Your task to perform on an android device: Search for Italian restaurants on Maps Image 0: 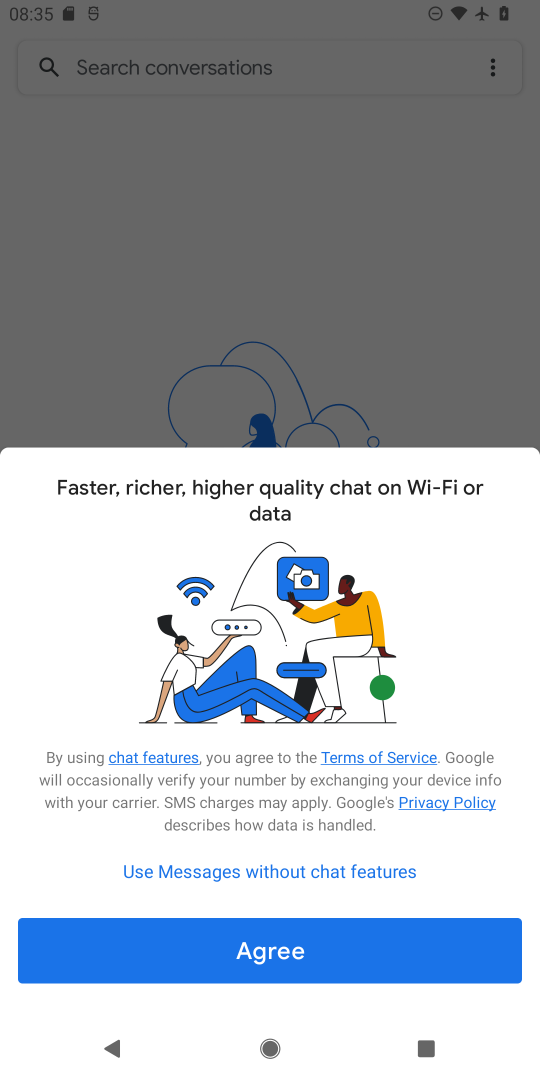
Step 0: press home button
Your task to perform on an android device: Search for Italian restaurants on Maps Image 1: 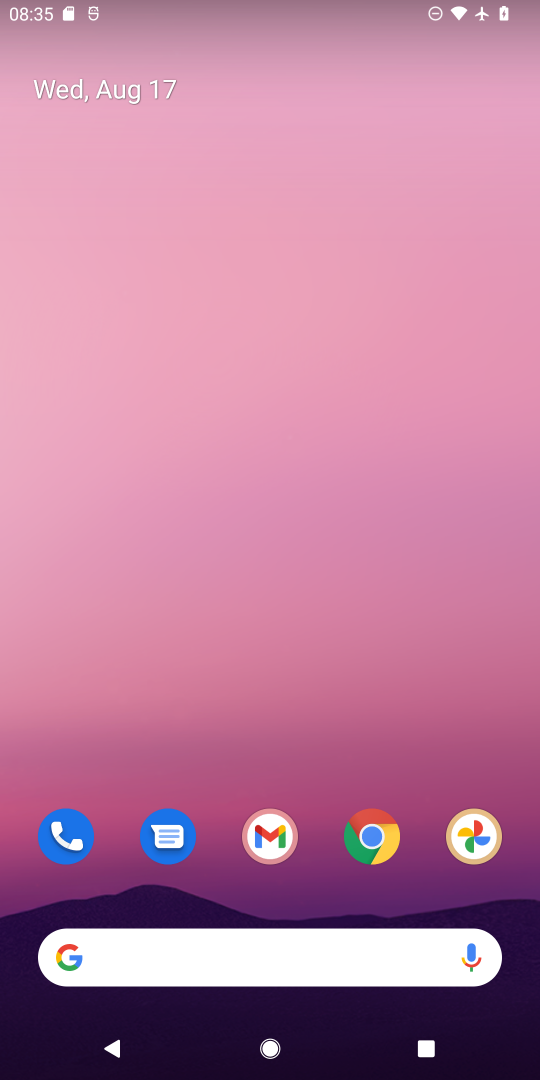
Step 1: drag from (249, 783) to (270, 308)
Your task to perform on an android device: Search for Italian restaurants on Maps Image 2: 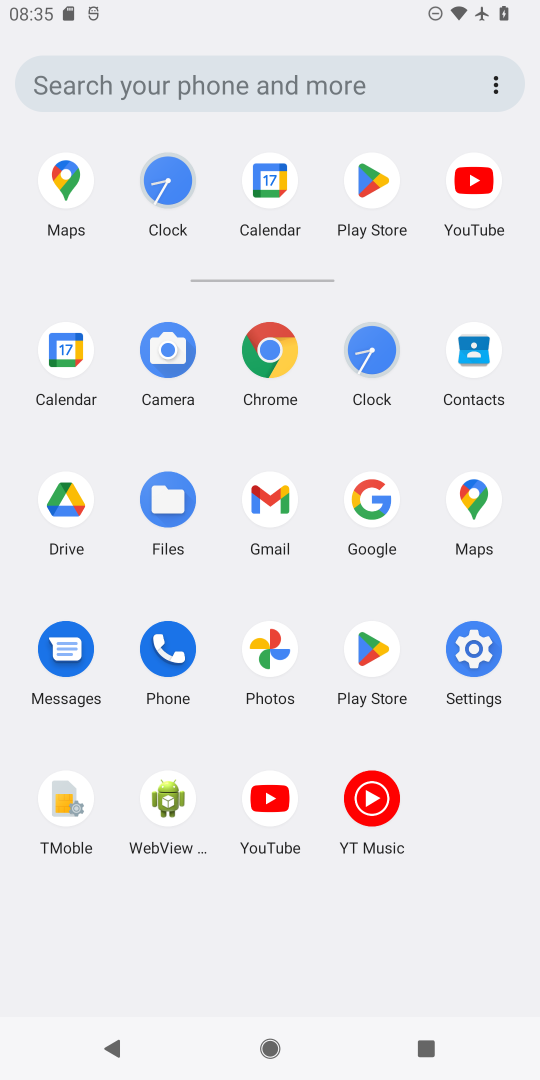
Step 2: click (468, 491)
Your task to perform on an android device: Search for Italian restaurants on Maps Image 3: 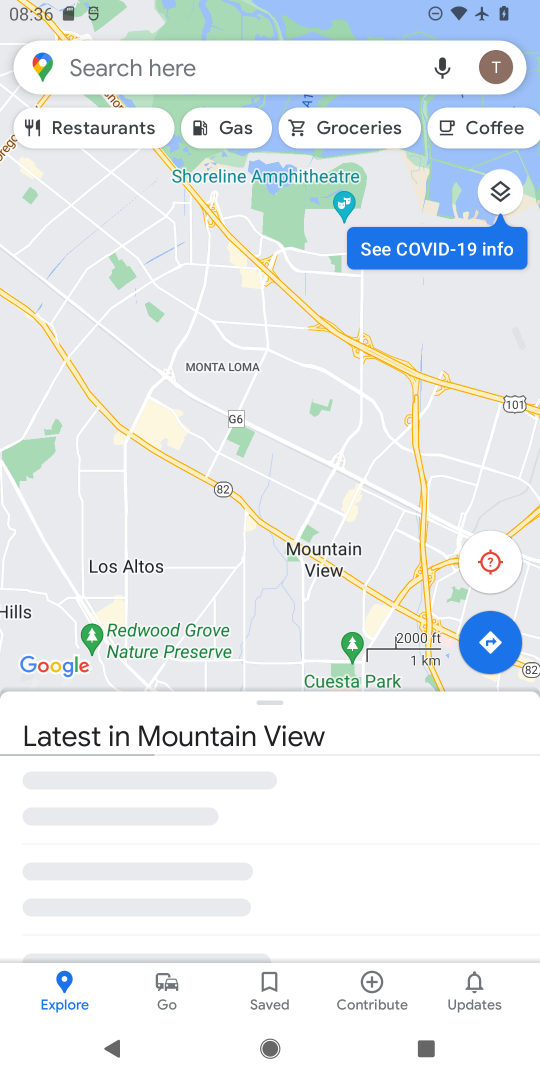
Step 3: click (184, 63)
Your task to perform on an android device: Search for Italian restaurants on Maps Image 4: 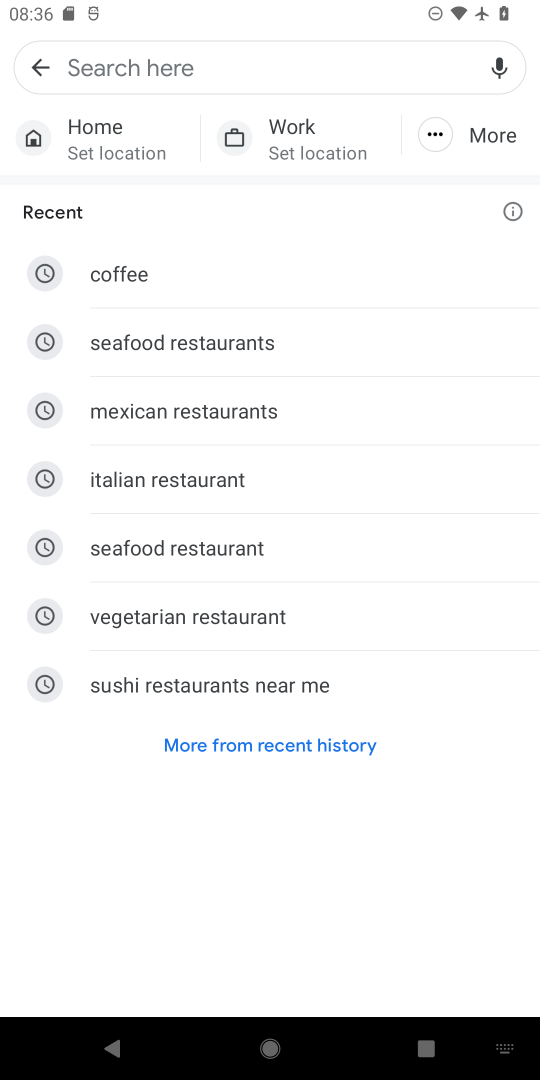
Step 4: click (220, 476)
Your task to perform on an android device: Search for Italian restaurants on Maps Image 5: 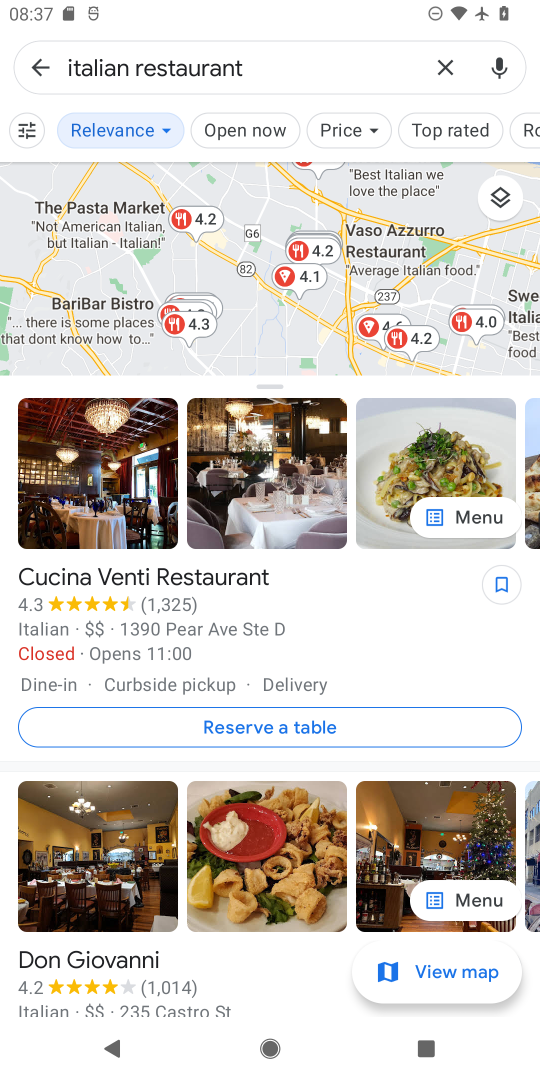
Step 5: task complete